Your task to perform on an android device: Google the capital of Colombia Image 0: 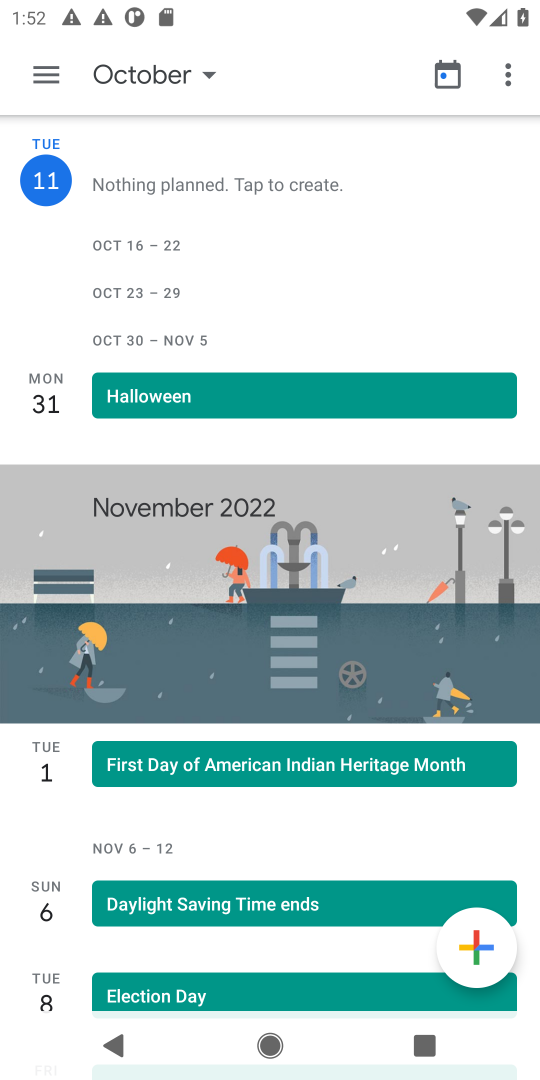
Step 0: press home button
Your task to perform on an android device: Google the capital of Colombia Image 1: 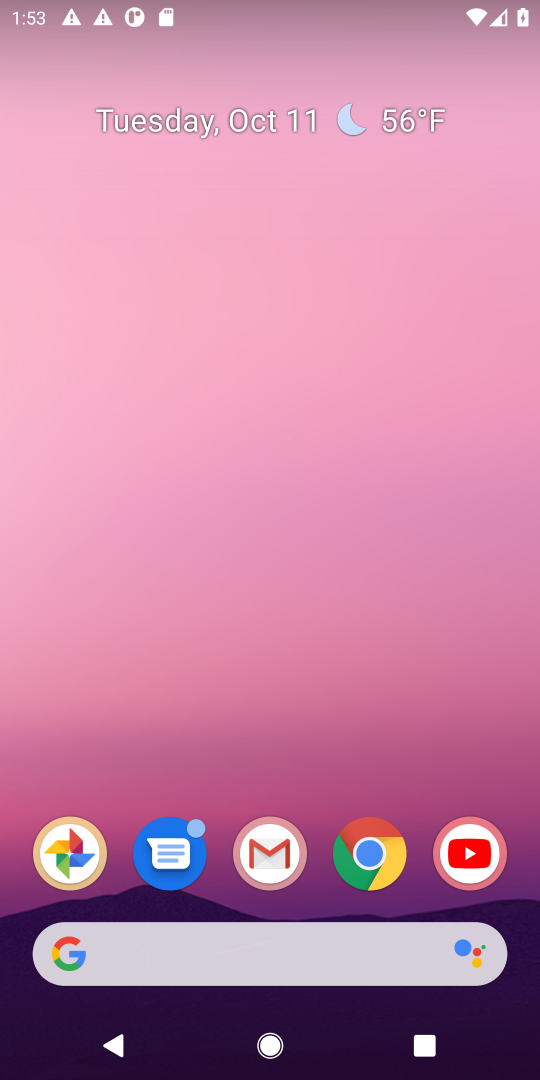
Step 1: drag from (268, 943) to (297, 382)
Your task to perform on an android device: Google the capital of Colombia Image 2: 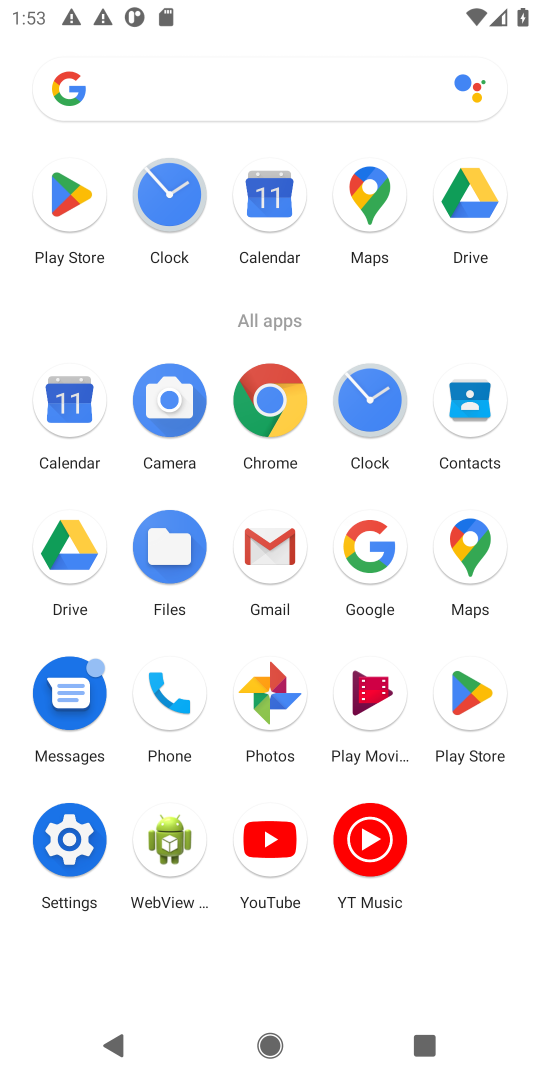
Step 2: click (366, 559)
Your task to perform on an android device: Google the capital of Colombia Image 3: 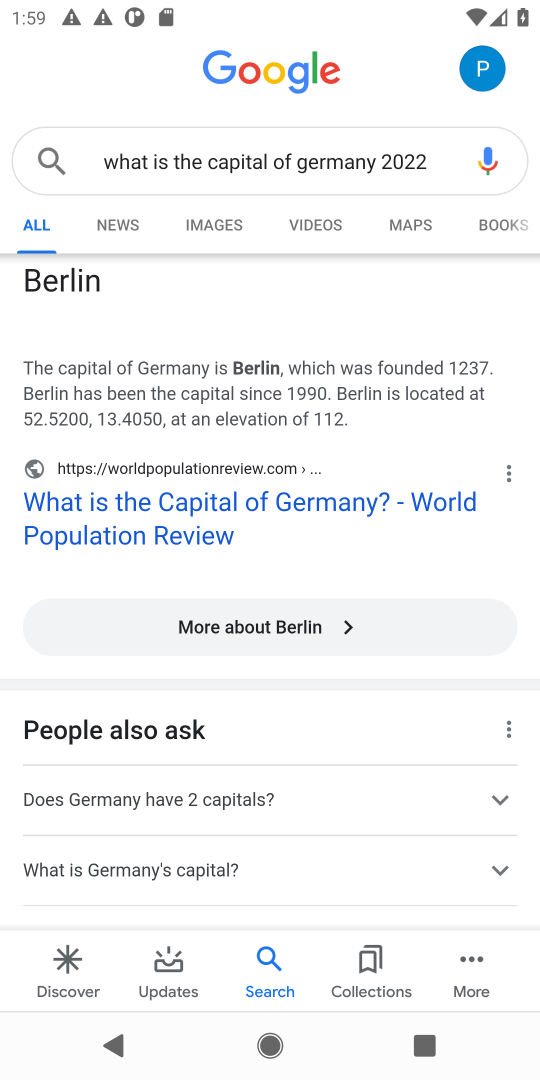
Step 3: task complete